Your task to perform on an android device: add a contact in the contacts app Image 0: 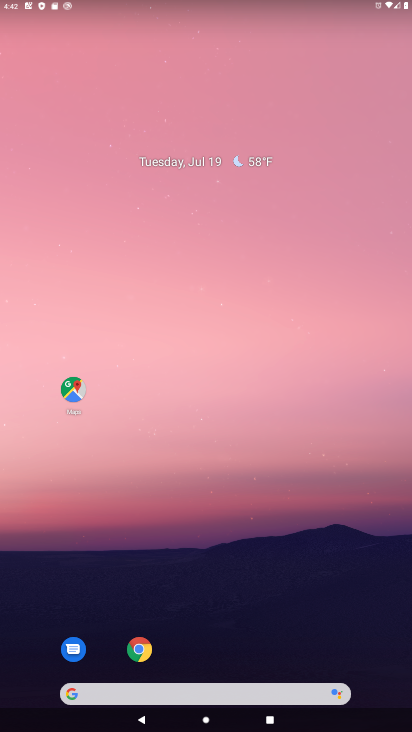
Step 0: drag from (177, 654) to (235, 40)
Your task to perform on an android device: add a contact in the contacts app Image 1: 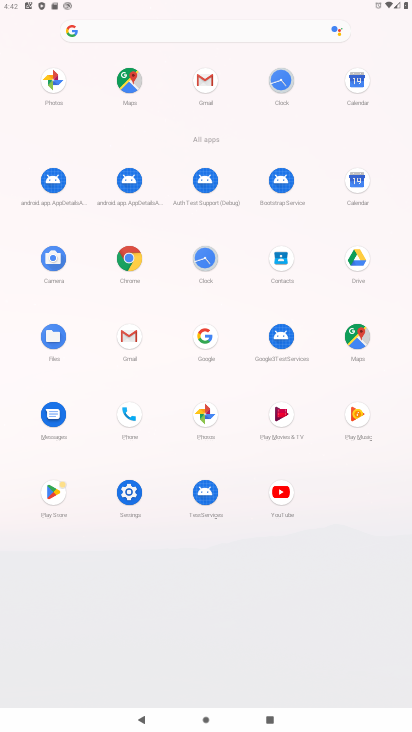
Step 1: click (275, 273)
Your task to perform on an android device: add a contact in the contacts app Image 2: 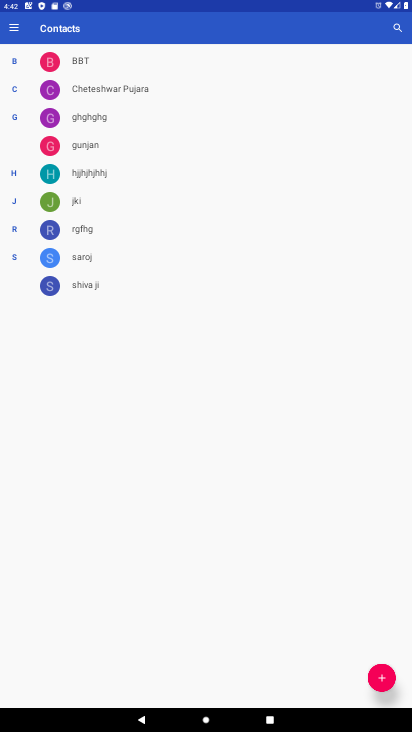
Step 2: click (384, 678)
Your task to perform on an android device: add a contact in the contacts app Image 3: 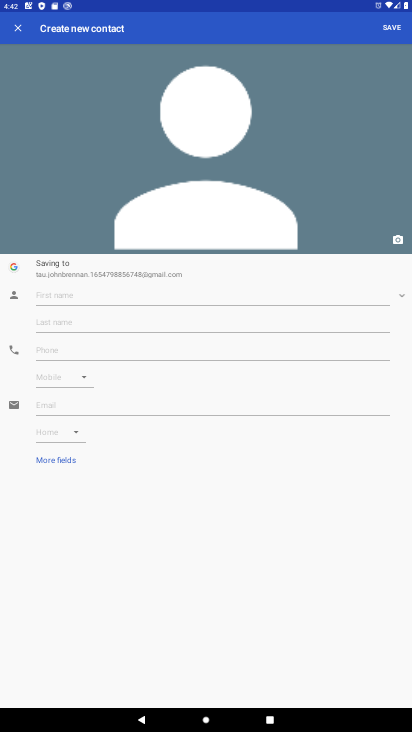
Step 3: click (56, 290)
Your task to perform on an android device: add a contact in the contacts app Image 4: 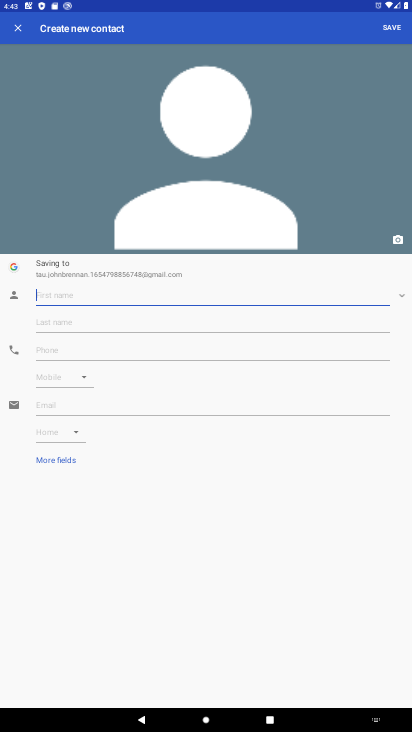
Step 4: type "urvashi"
Your task to perform on an android device: add a contact in the contacts app Image 5: 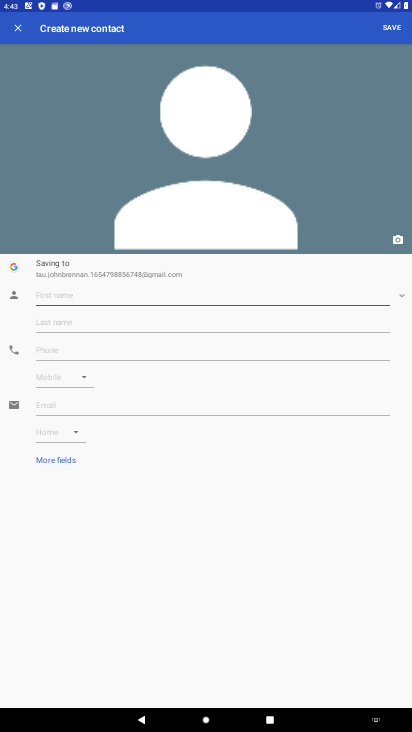
Step 5: click (84, 327)
Your task to perform on an android device: add a contact in the contacts app Image 6: 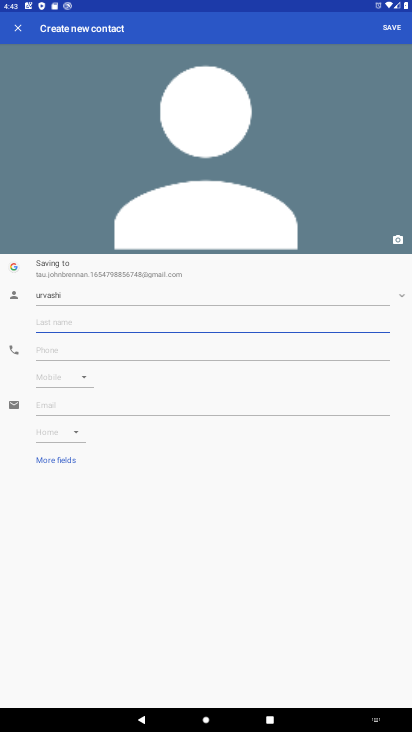
Step 6: type "khanna"
Your task to perform on an android device: add a contact in the contacts app Image 7: 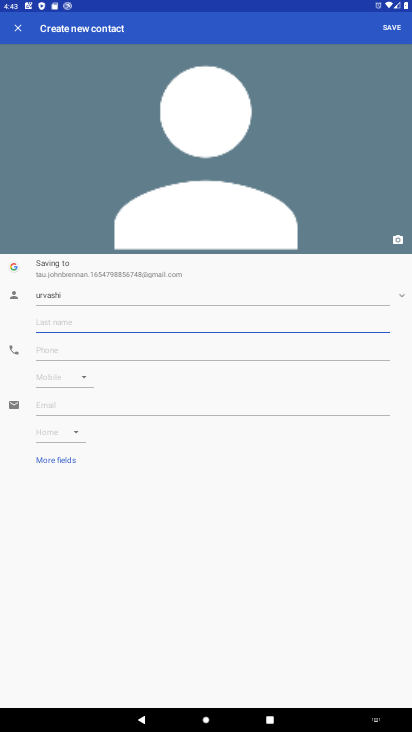
Step 7: click (54, 357)
Your task to perform on an android device: add a contact in the contacts app Image 8: 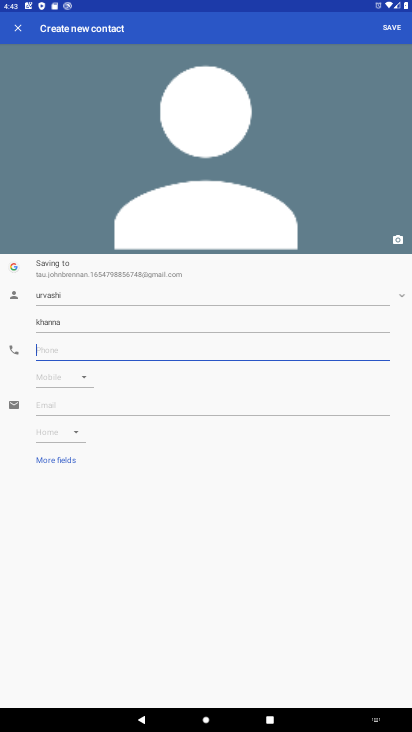
Step 8: type "9088908876"
Your task to perform on an android device: add a contact in the contacts app Image 9: 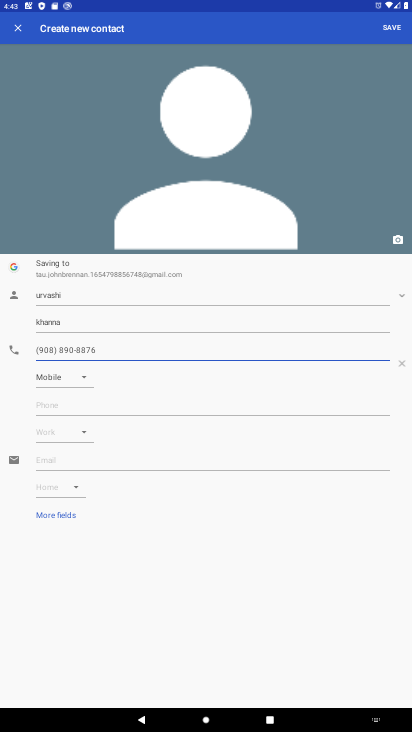
Step 9: click (388, 28)
Your task to perform on an android device: add a contact in the contacts app Image 10: 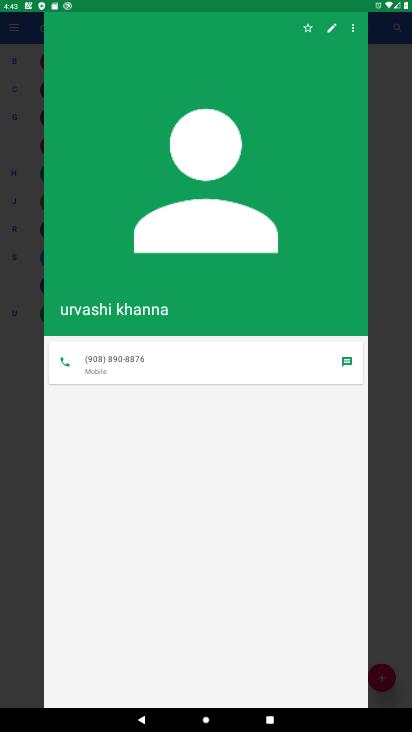
Step 10: task complete